Your task to perform on an android device: Open settings Image 0: 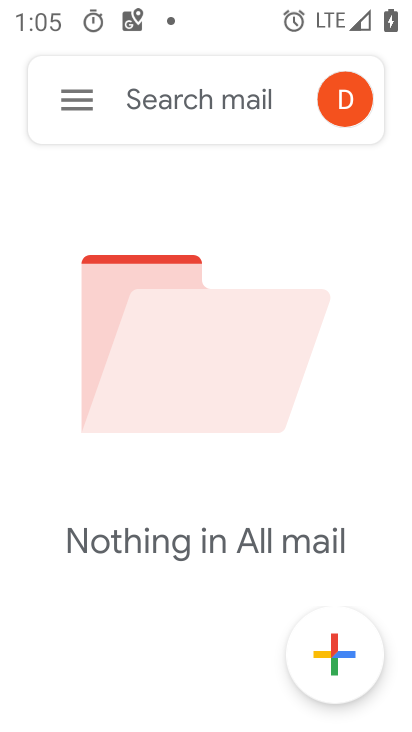
Step 0: press home button
Your task to perform on an android device: Open settings Image 1: 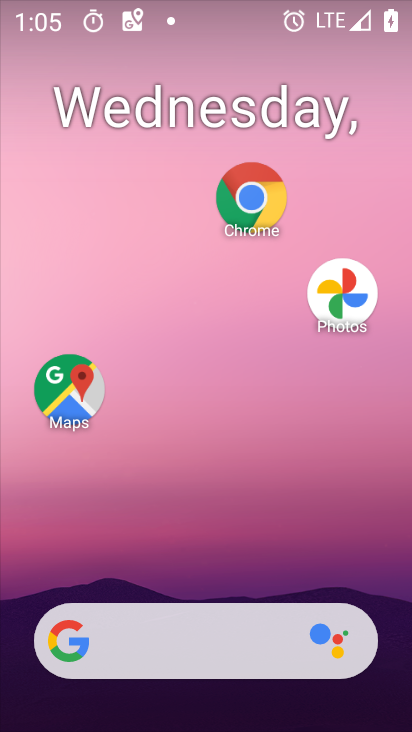
Step 1: drag from (236, 663) to (219, 8)
Your task to perform on an android device: Open settings Image 2: 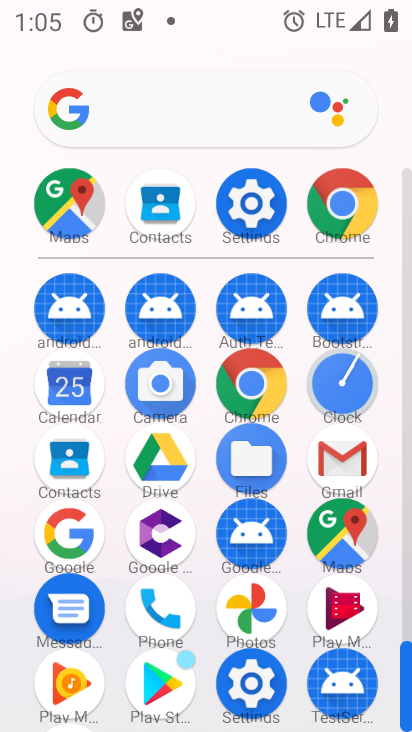
Step 2: click (256, 222)
Your task to perform on an android device: Open settings Image 3: 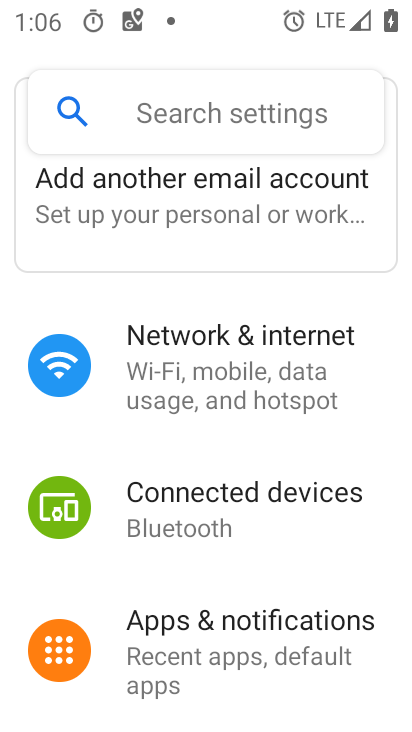
Step 3: task complete